Your task to perform on an android device: add a contact in the contacts app Image 0: 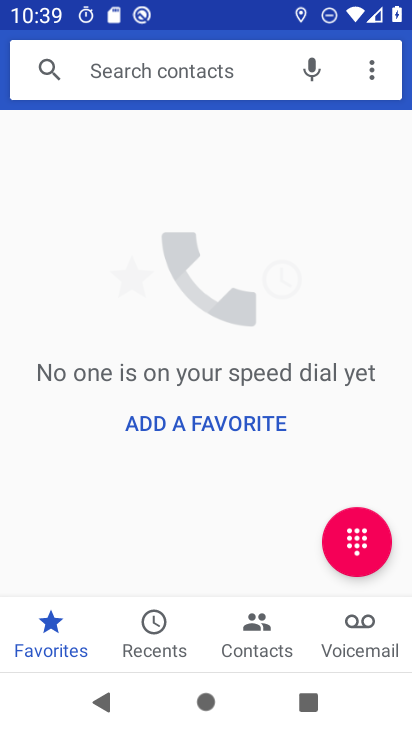
Step 0: press home button
Your task to perform on an android device: add a contact in the contacts app Image 1: 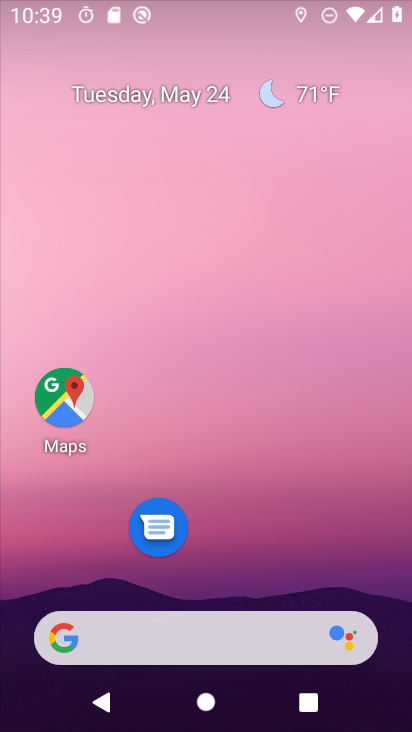
Step 1: drag from (260, 562) to (287, 81)
Your task to perform on an android device: add a contact in the contacts app Image 2: 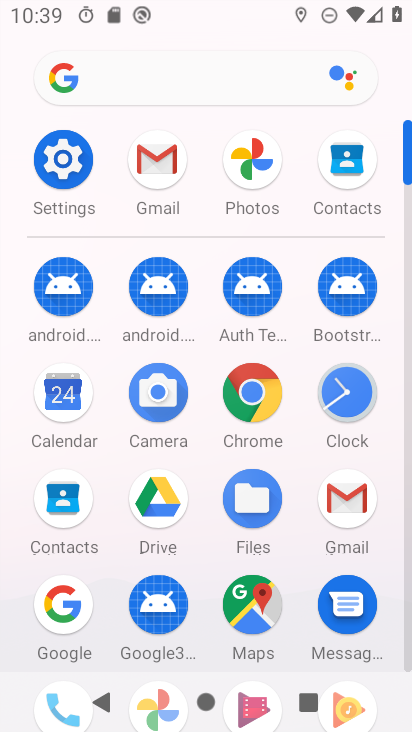
Step 2: click (68, 503)
Your task to perform on an android device: add a contact in the contacts app Image 3: 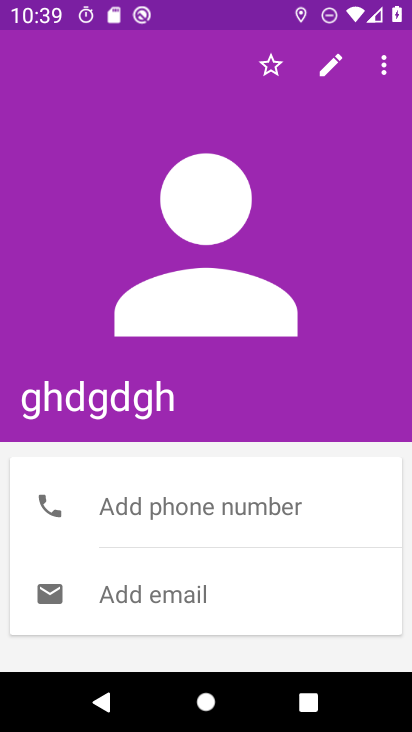
Step 3: press back button
Your task to perform on an android device: add a contact in the contacts app Image 4: 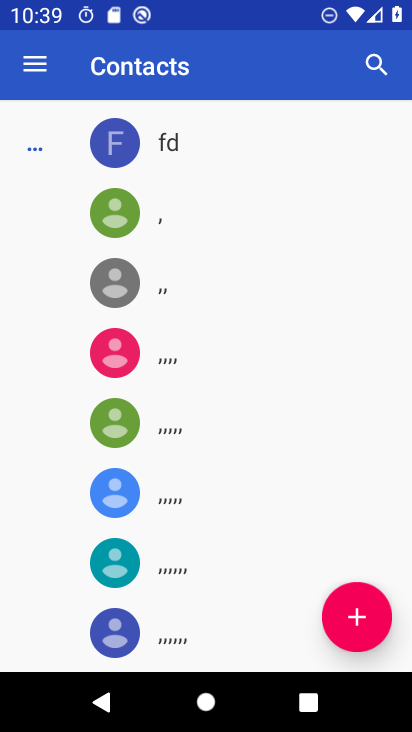
Step 4: click (356, 612)
Your task to perform on an android device: add a contact in the contacts app Image 5: 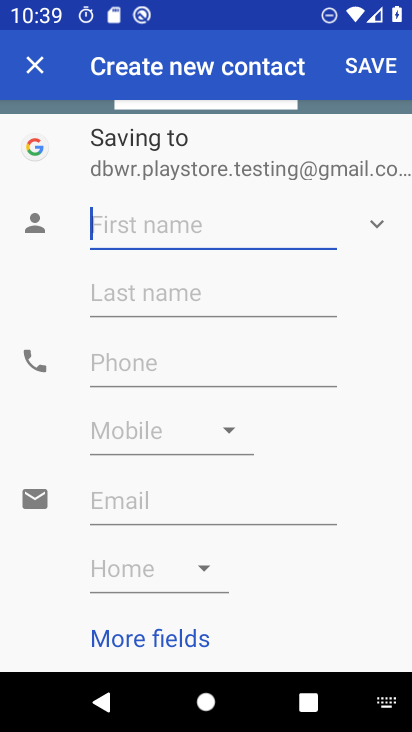
Step 5: type "hdhjjh"
Your task to perform on an android device: add a contact in the contacts app Image 6: 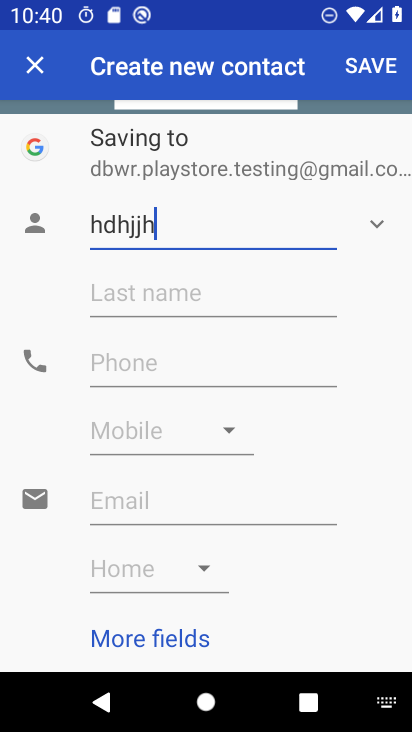
Step 6: click (377, 64)
Your task to perform on an android device: add a contact in the contacts app Image 7: 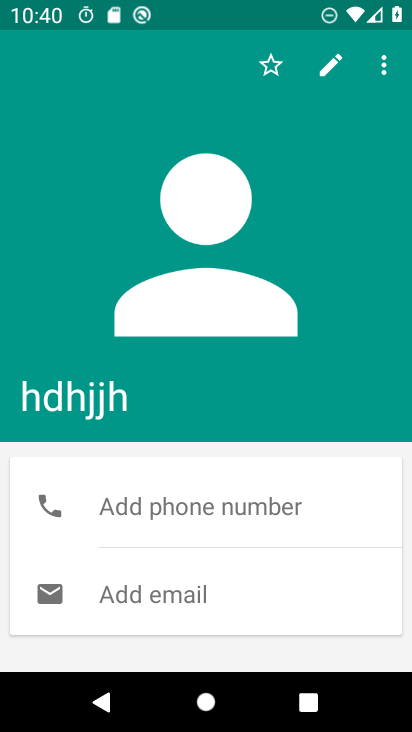
Step 7: task complete